Your task to perform on an android device: Add "logitech g pro" to the cart on costco.com, then select checkout. Image 0: 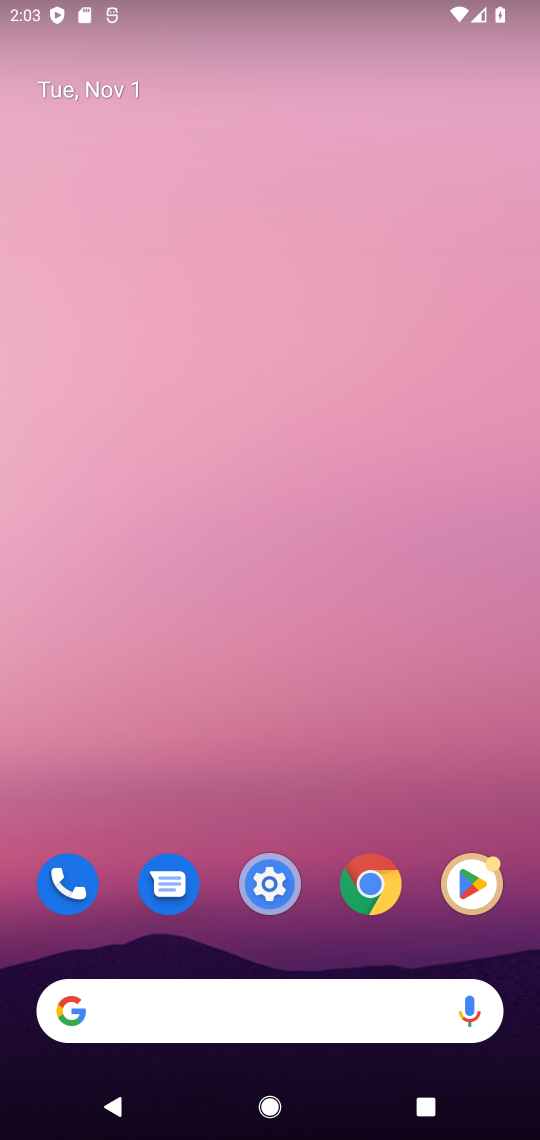
Step 0: click (100, 1009)
Your task to perform on an android device: Add "logitech g pro" to the cart on costco.com, then select checkout. Image 1: 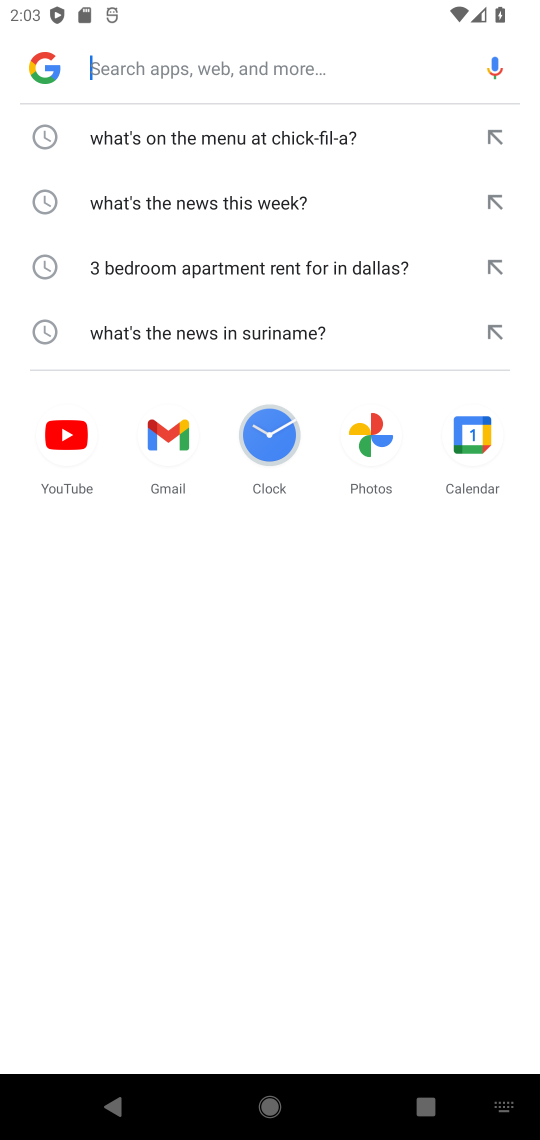
Step 1: press enter
Your task to perform on an android device: Add "logitech g pro" to the cart on costco.com, then select checkout. Image 2: 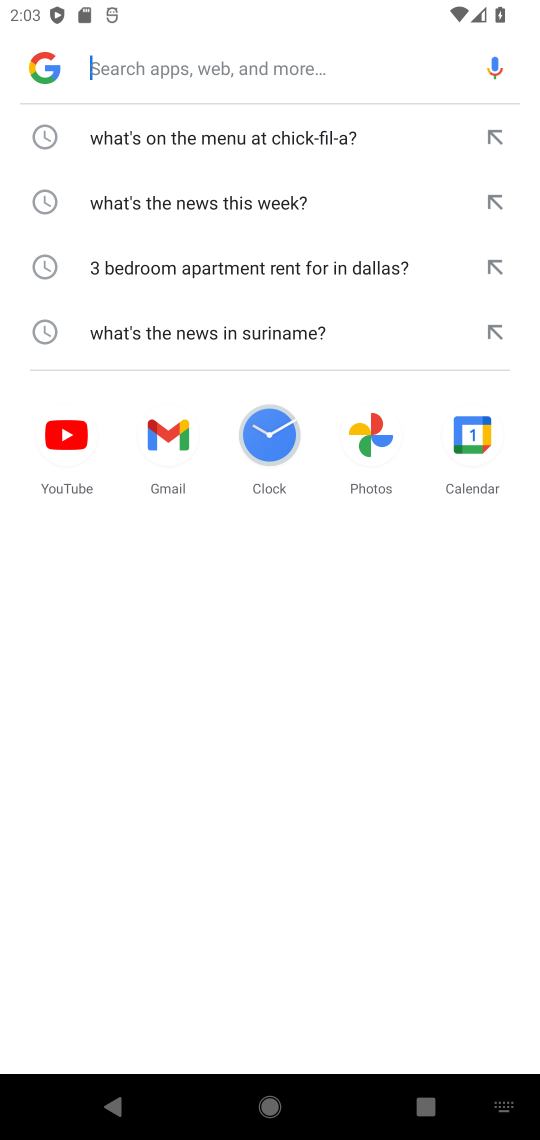
Step 2: type "costco.com"
Your task to perform on an android device: Add "logitech g pro" to the cart on costco.com, then select checkout. Image 3: 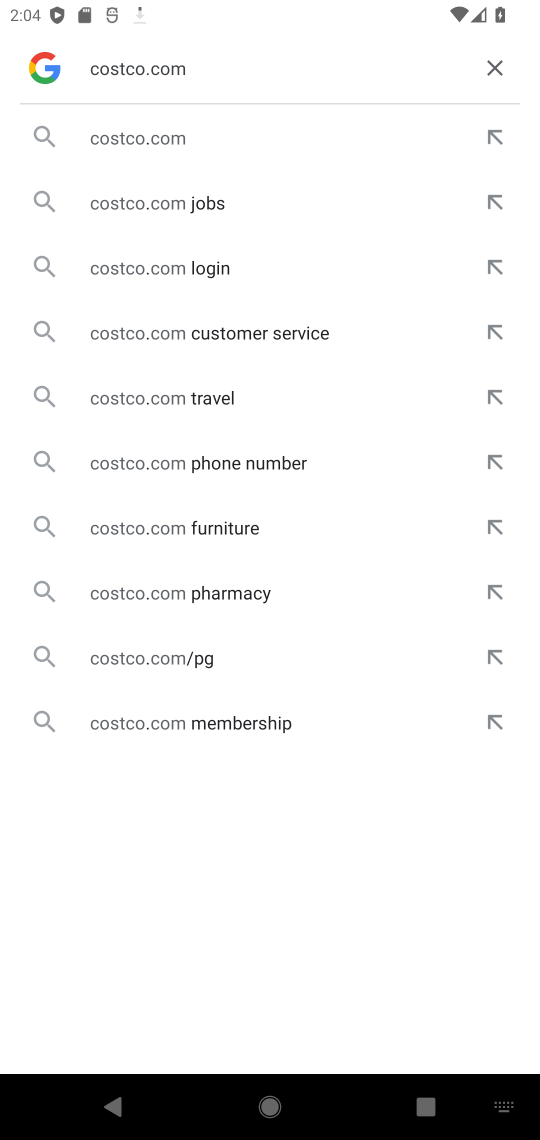
Step 3: click (178, 129)
Your task to perform on an android device: Add "logitech g pro" to the cart on costco.com, then select checkout. Image 4: 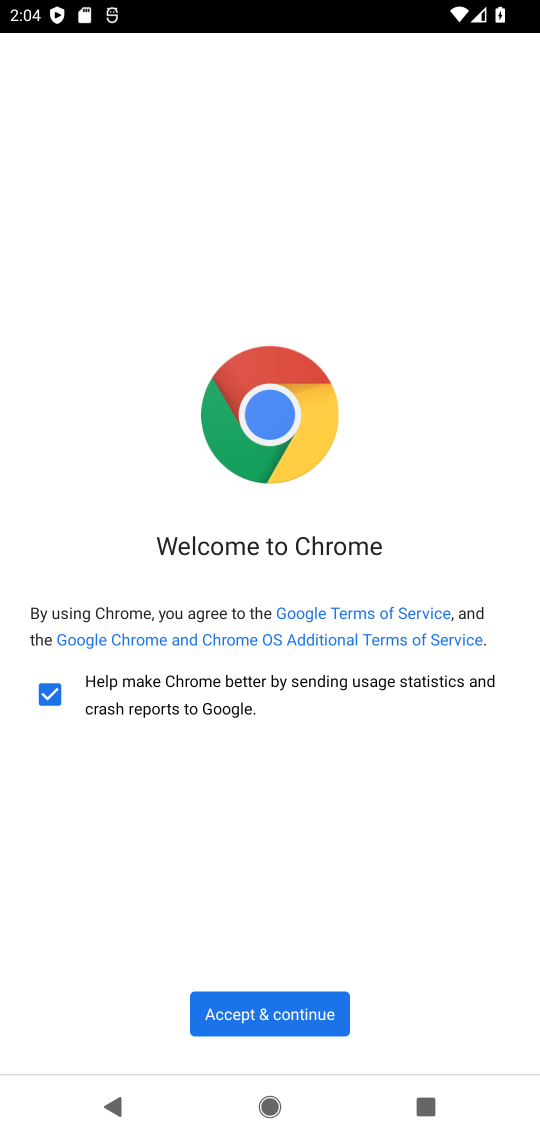
Step 4: click (232, 1010)
Your task to perform on an android device: Add "logitech g pro" to the cart on costco.com, then select checkout. Image 5: 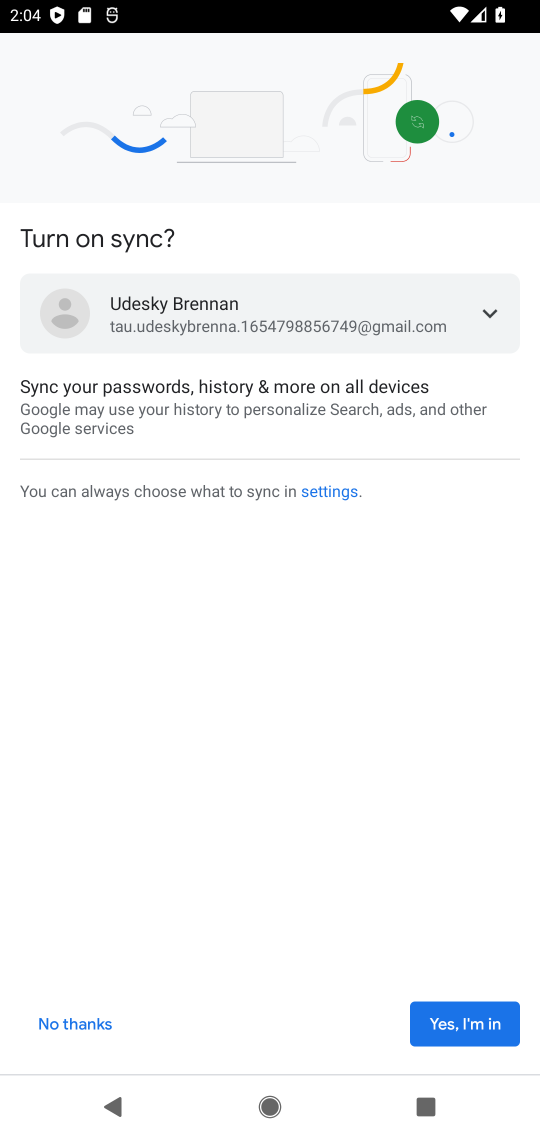
Step 5: click (451, 1028)
Your task to perform on an android device: Add "logitech g pro" to the cart on costco.com, then select checkout. Image 6: 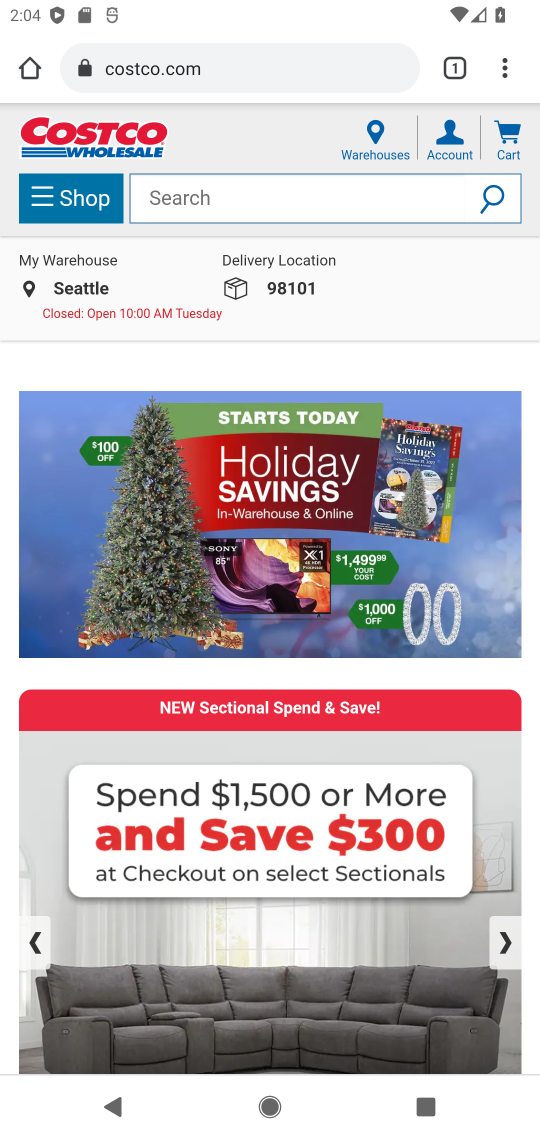
Step 6: click (162, 187)
Your task to perform on an android device: Add "logitech g pro" to the cart on costco.com, then select checkout. Image 7: 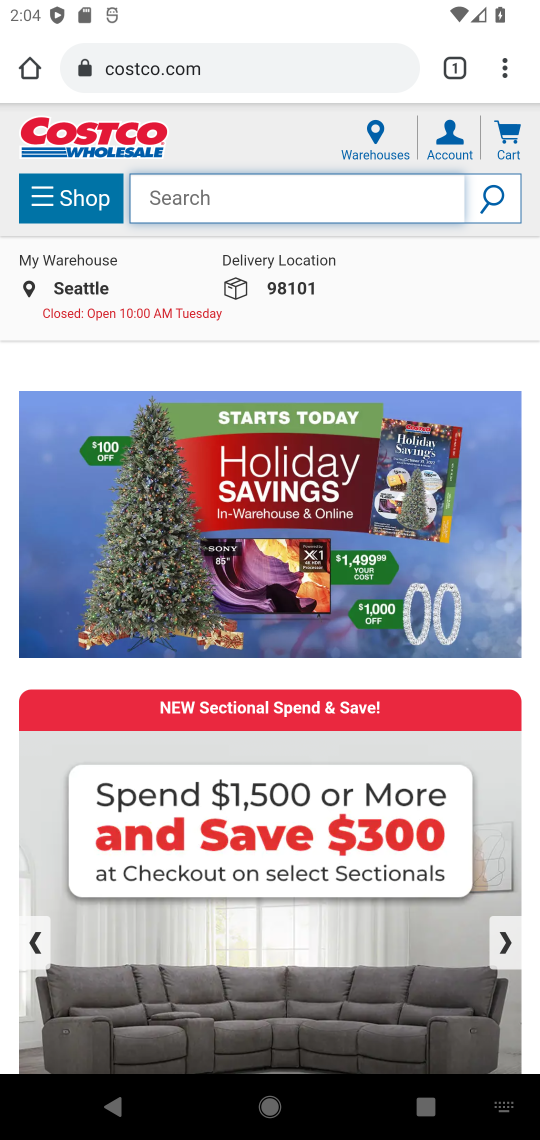
Step 7: type "logitech g pro"
Your task to perform on an android device: Add "logitech g pro" to the cart on costco.com, then select checkout. Image 8: 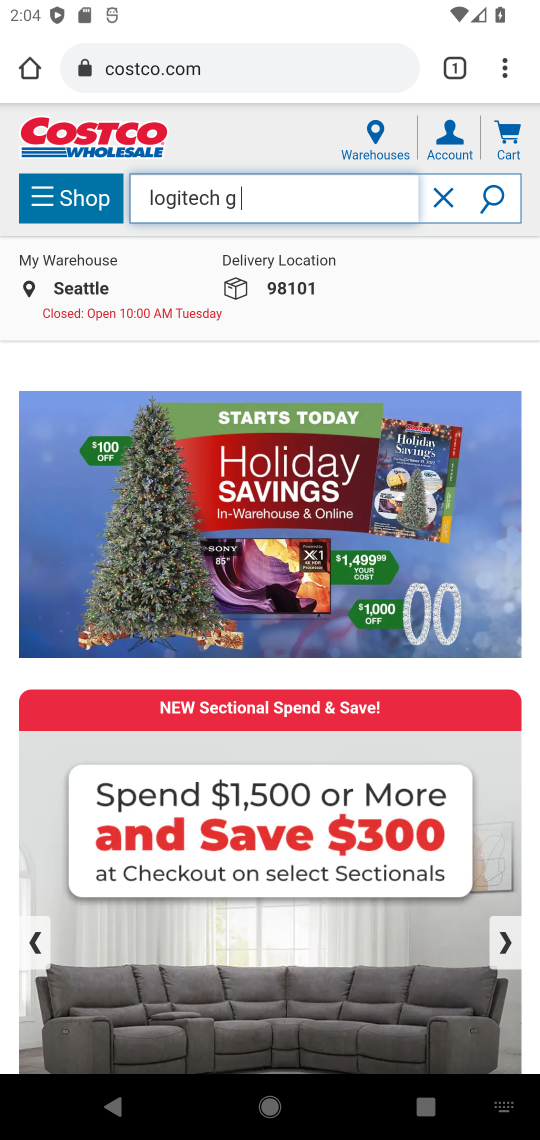
Step 8: press enter
Your task to perform on an android device: Add "logitech g pro" to the cart on costco.com, then select checkout. Image 9: 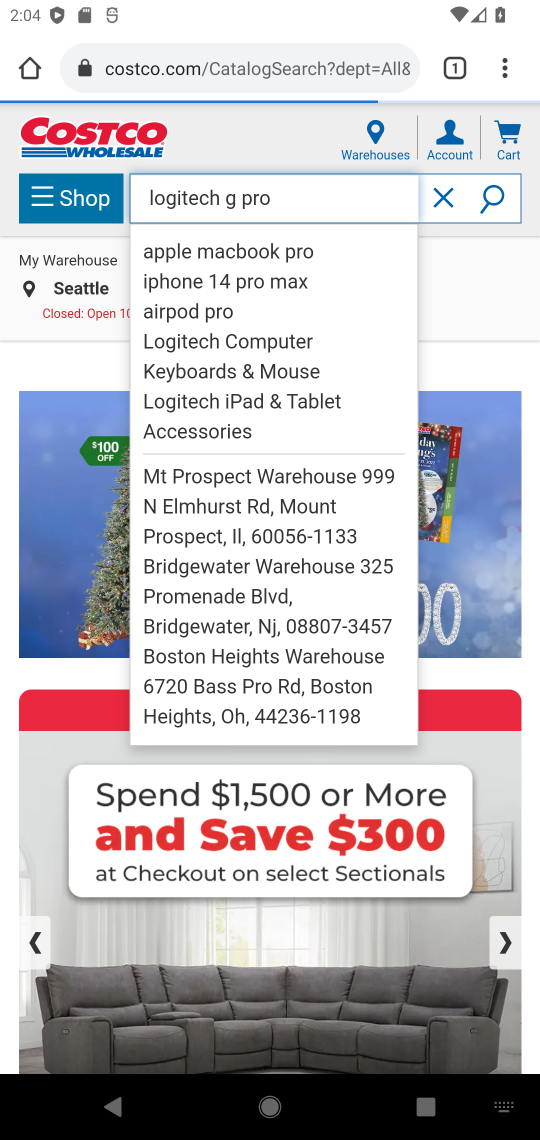
Step 9: click (492, 194)
Your task to perform on an android device: Add "logitech g pro" to the cart on costco.com, then select checkout. Image 10: 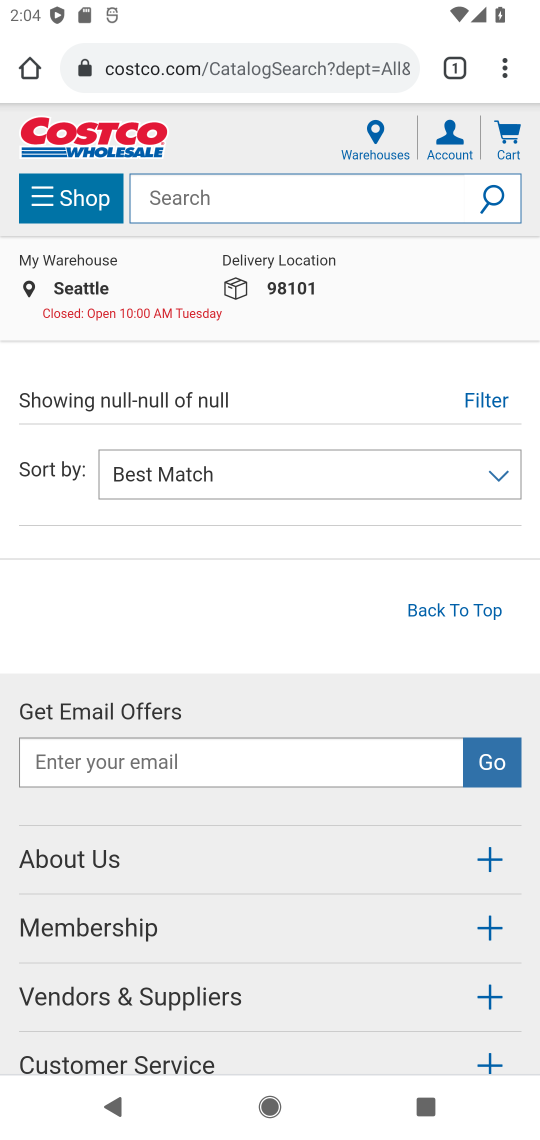
Step 10: drag from (363, 828) to (325, 288)
Your task to perform on an android device: Add "logitech g pro" to the cart on costco.com, then select checkout. Image 11: 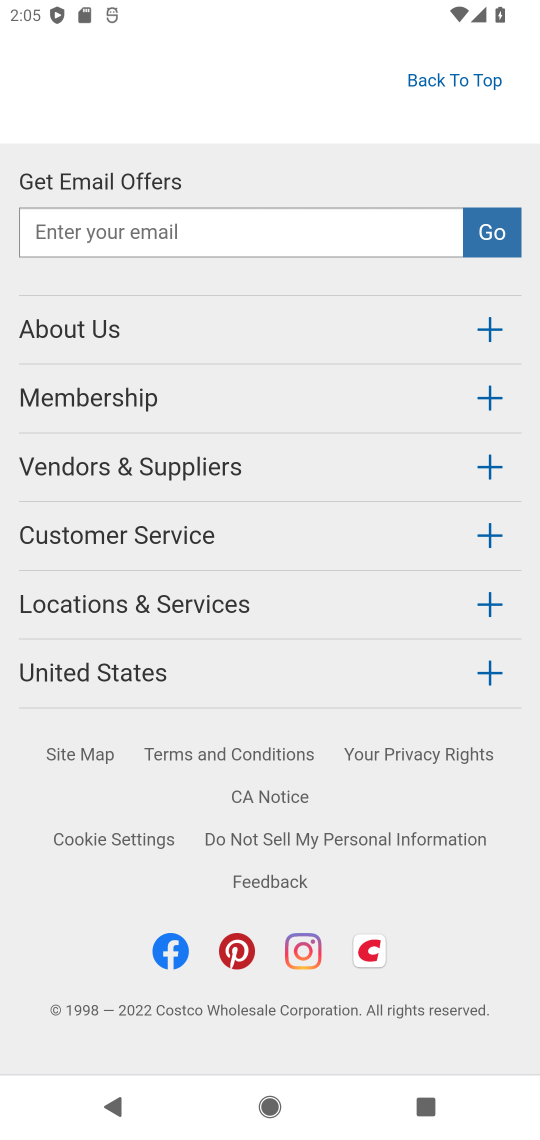
Step 11: drag from (336, 196) to (399, 879)
Your task to perform on an android device: Add "logitech g pro" to the cart on costco.com, then select checkout. Image 12: 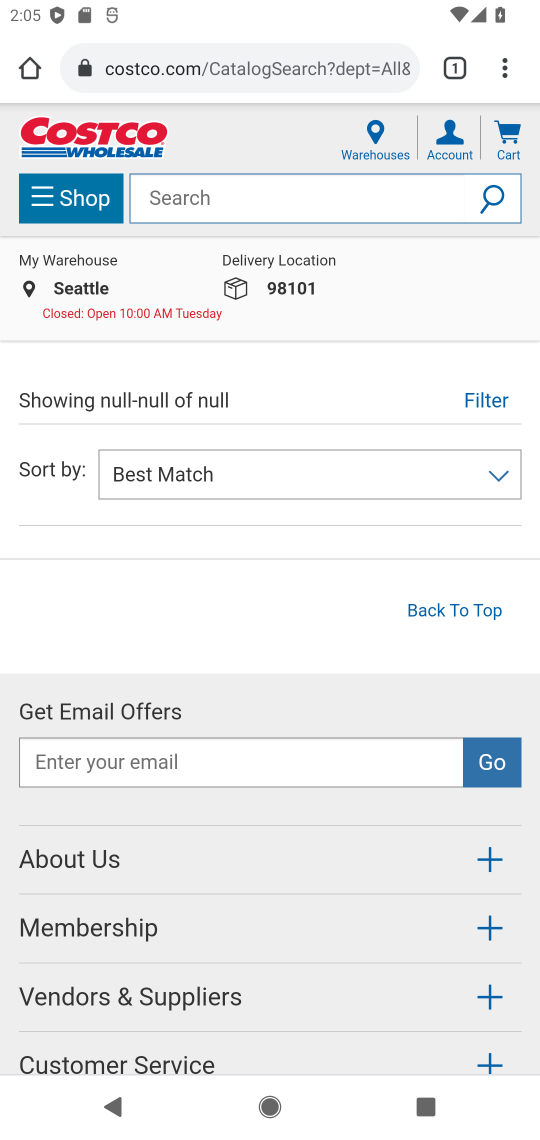
Step 12: click (226, 180)
Your task to perform on an android device: Add "logitech g pro" to the cart on costco.com, then select checkout. Image 13: 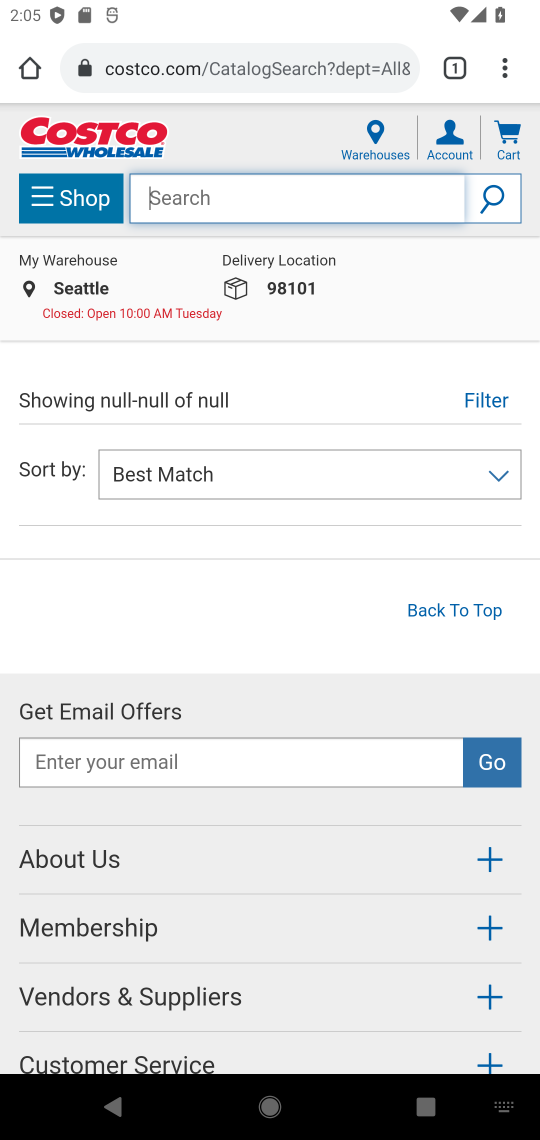
Step 13: type "logitech g pro"
Your task to perform on an android device: Add "logitech g pro" to the cart on costco.com, then select checkout. Image 14: 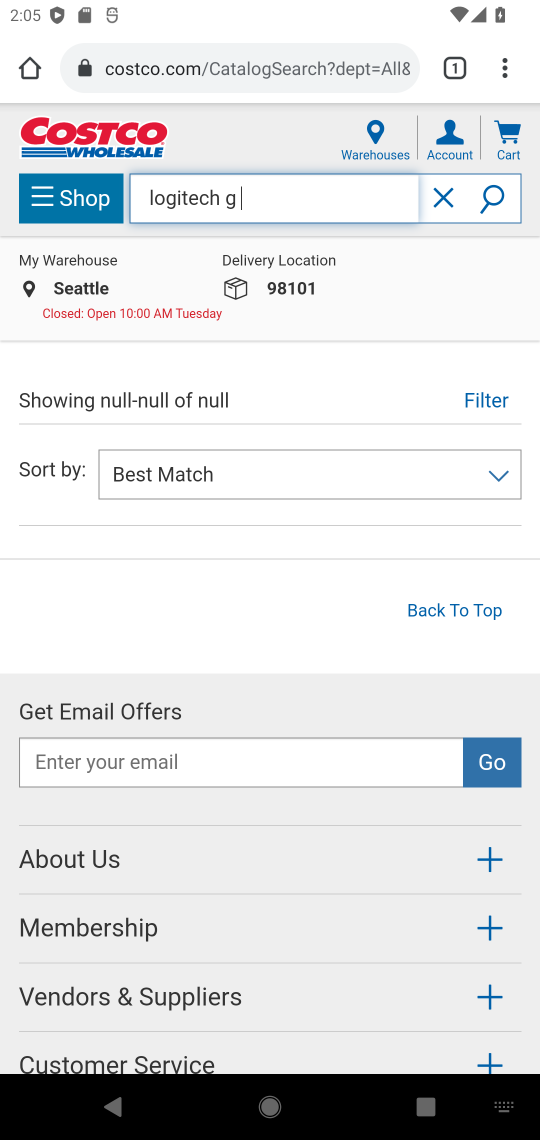
Step 14: press enter
Your task to perform on an android device: Add "logitech g pro" to the cart on costco.com, then select checkout. Image 15: 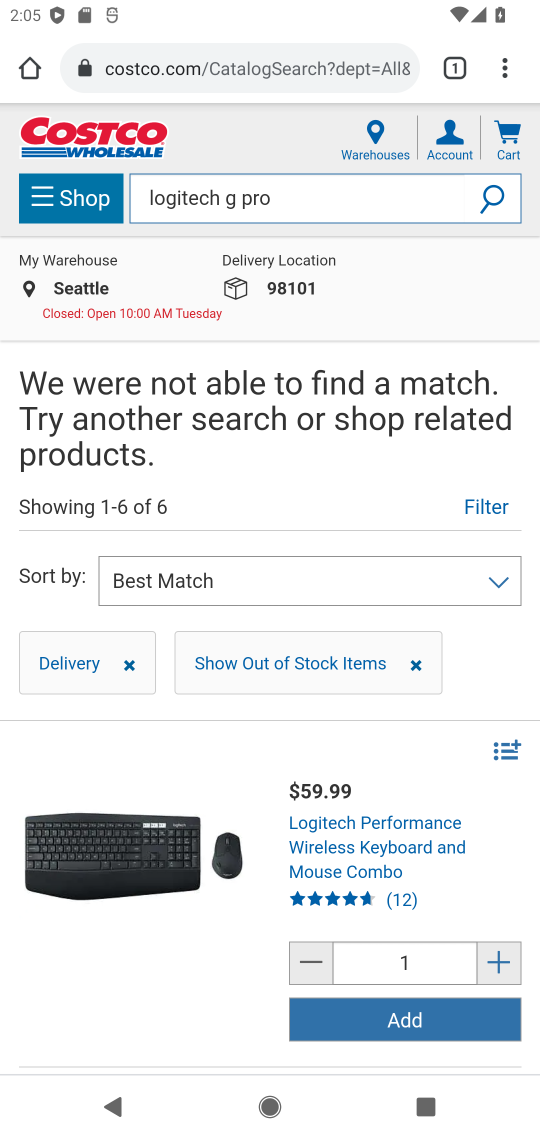
Step 15: task complete